Your task to perform on an android device: manage bookmarks in the chrome app Image 0: 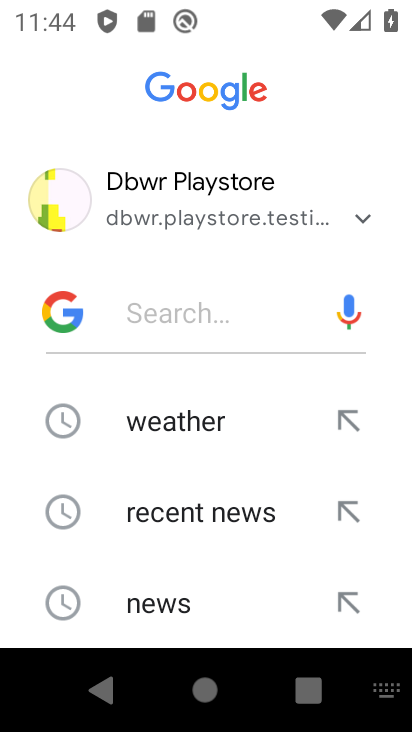
Step 0: press home button
Your task to perform on an android device: manage bookmarks in the chrome app Image 1: 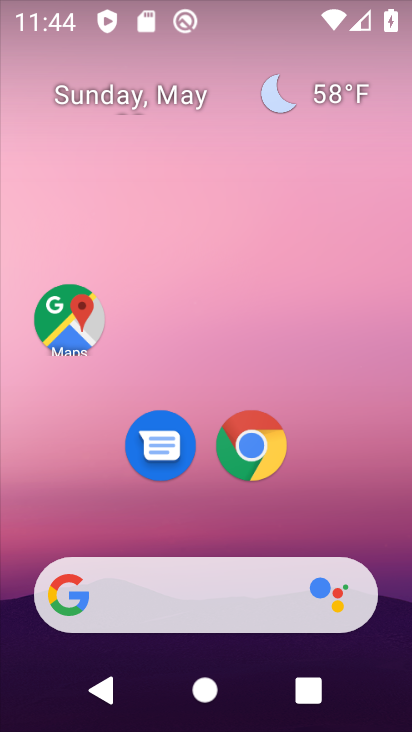
Step 1: click (250, 443)
Your task to perform on an android device: manage bookmarks in the chrome app Image 2: 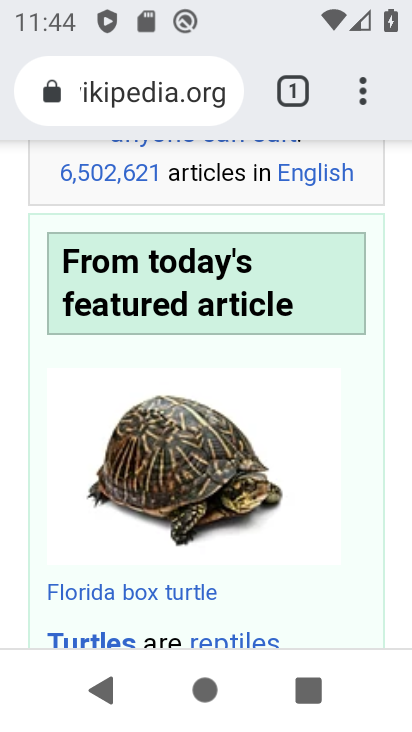
Step 2: click (357, 90)
Your task to perform on an android device: manage bookmarks in the chrome app Image 3: 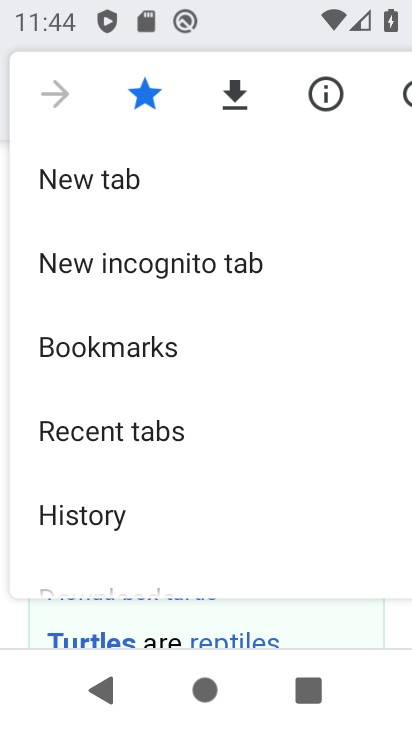
Step 3: click (192, 345)
Your task to perform on an android device: manage bookmarks in the chrome app Image 4: 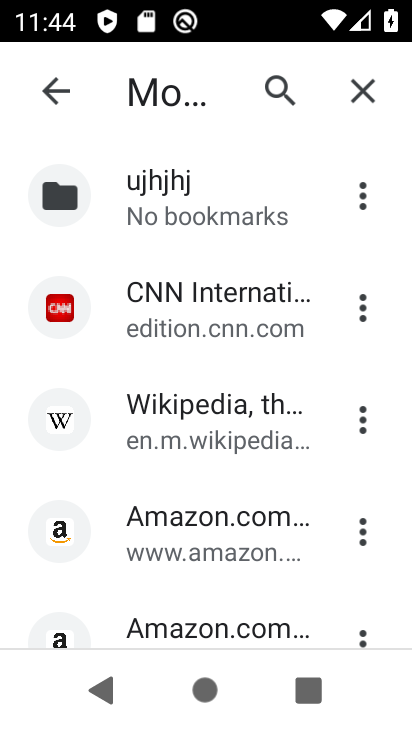
Step 4: click (366, 303)
Your task to perform on an android device: manage bookmarks in the chrome app Image 5: 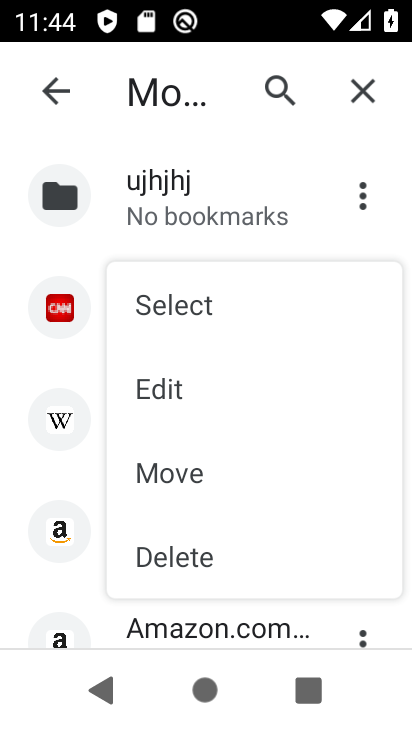
Step 5: click (218, 558)
Your task to perform on an android device: manage bookmarks in the chrome app Image 6: 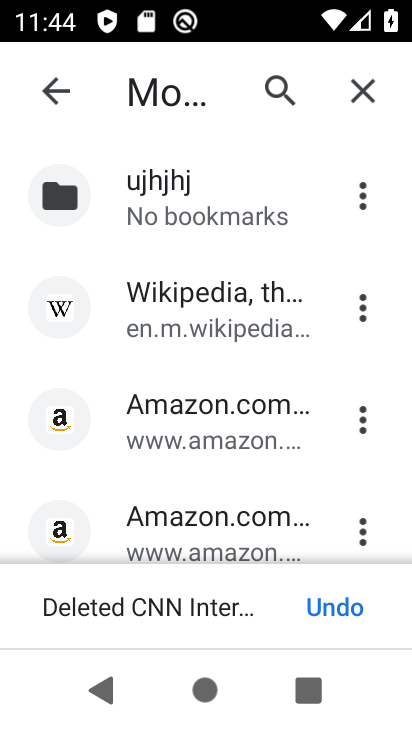
Step 6: task complete